Your task to perform on an android device: star an email in the gmail app Image 0: 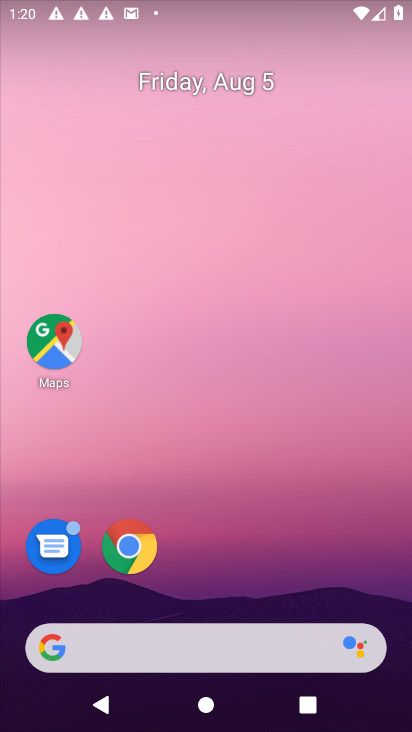
Step 0: press home button
Your task to perform on an android device: star an email in the gmail app Image 1: 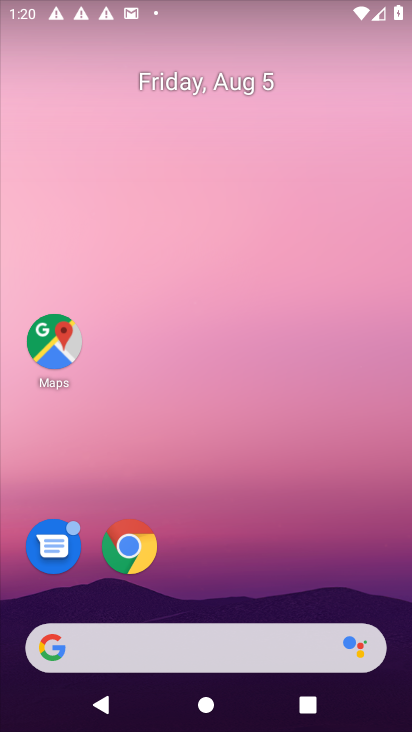
Step 1: drag from (222, 587) to (268, 34)
Your task to perform on an android device: star an email in the gmail app Image 2: 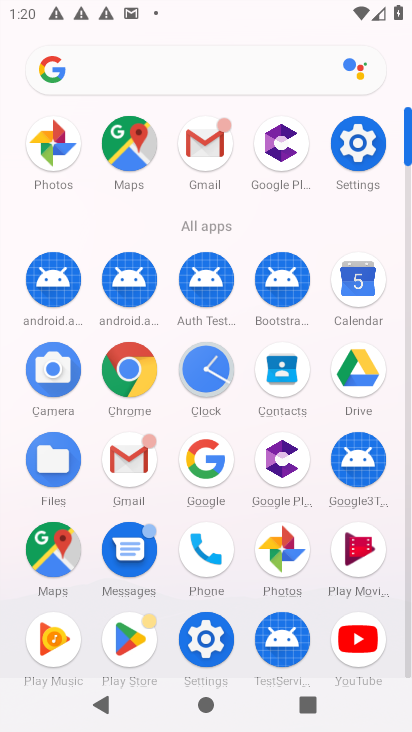
Step 2: click (130, 450)
Your task to perform on an android device: star an email in the gmail app Image 3: 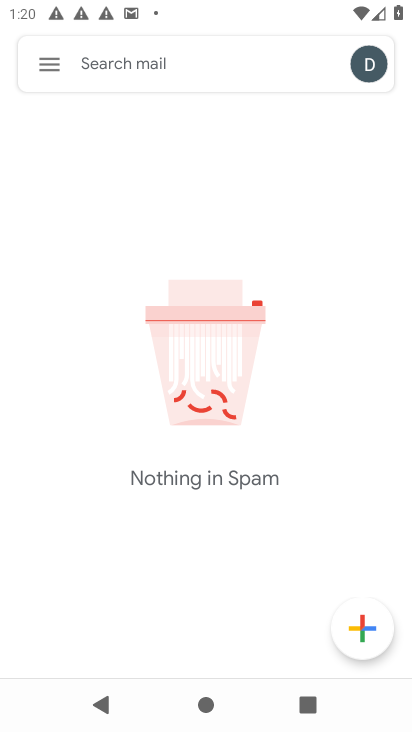
Step 3: click (47, 63)
Your task to perform on an android device: star an email in the gmail app Image 4: 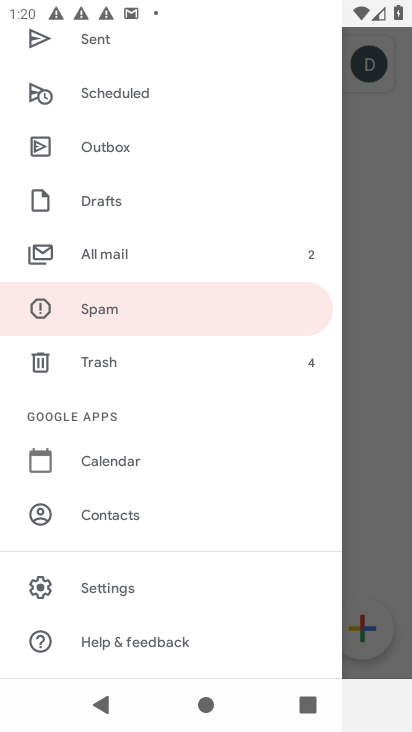
Step 4: click (389, 319)
Your task to perform on an android device: star an email in the gmail app Image 5: 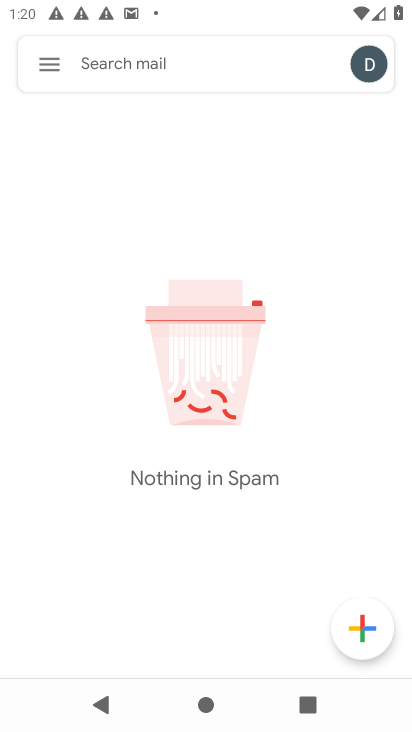
Step 5: click (47, 67)
Your task to perform on an android device: star an email in the gmail app Image 6: 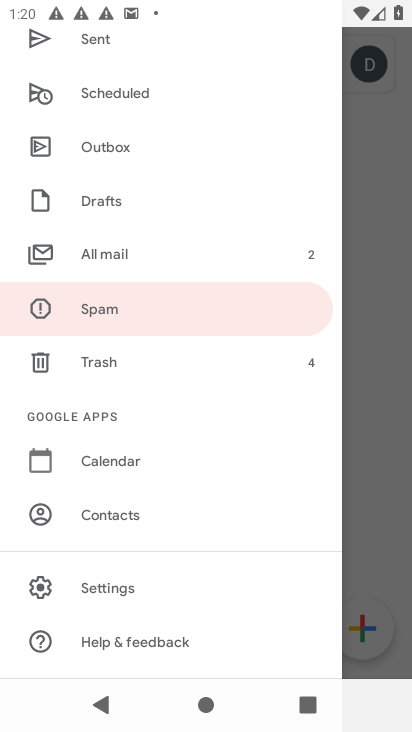
Step 6: click (99, 249)
Your task to perform on an android device: star an email in the gmail app Image 7: 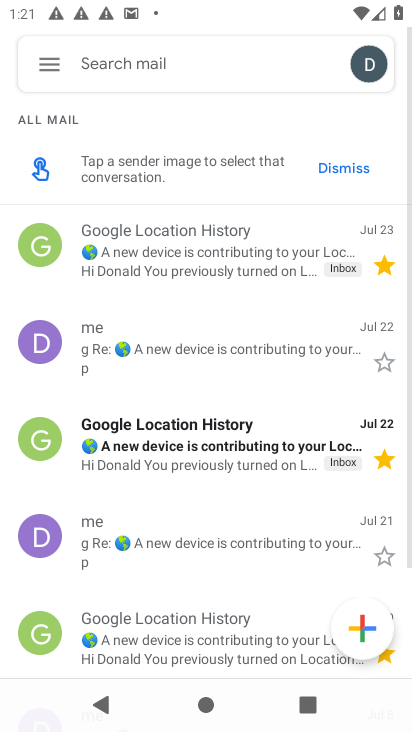
Step 7: click (382, 356)
Your task to perform on an android device: star an email in the gmail app Image 8: 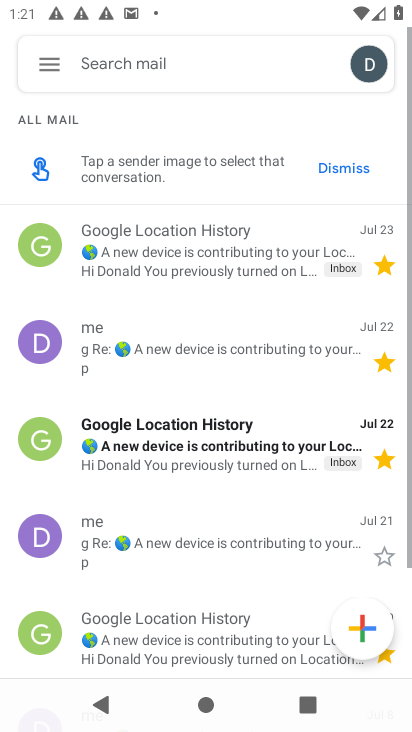
Step 8: task complete